Your task to perform on an android device: turn notification dots off Image 0: 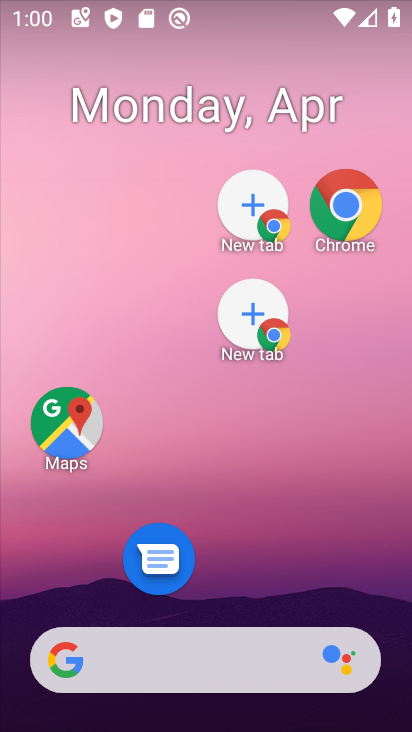
Step 0: drag from (63, 543) to (155, 246)
Your task to perform on an android device: turn notification dots off Image 1: 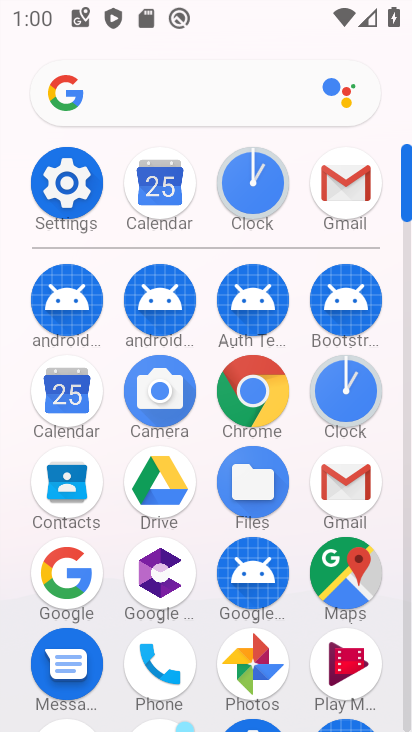
Step 1: click (85, 187)
Your task to perform on an android device: turn notification dots off Image 2: 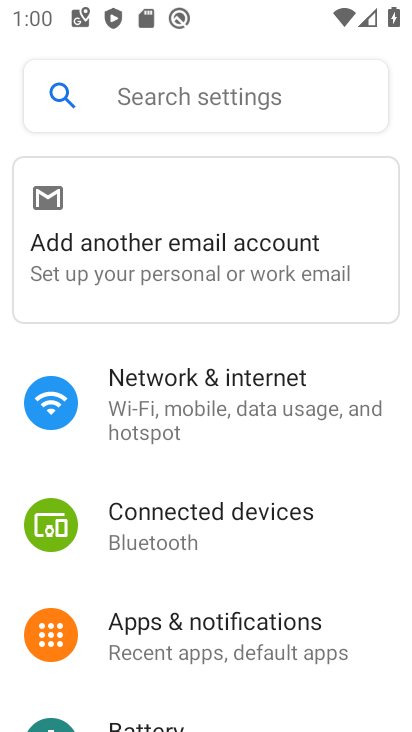
Step 2: click (251, 630)
Your task to perform on an android device: turn notification dots off Image 3: 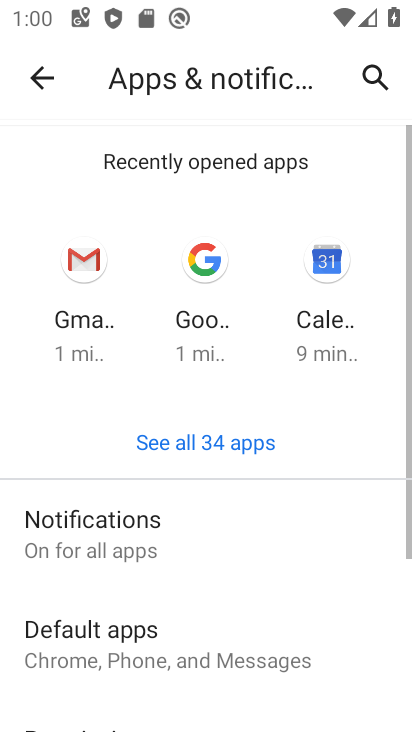
Step 3: drag from (132, 652) to (286, 171)
Your task to perform on an android device: turn notification dots off Image 4: 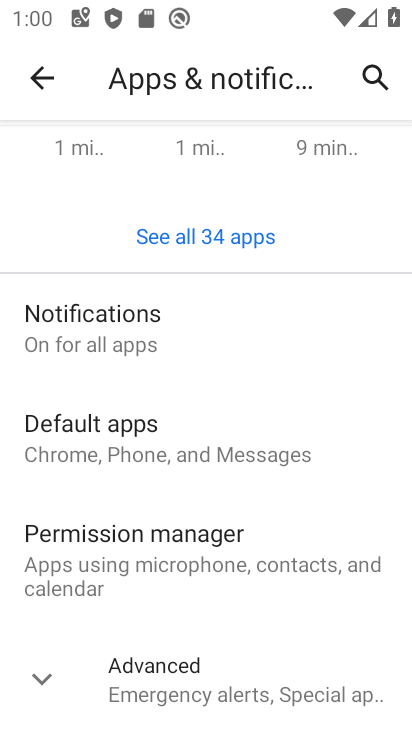
Step 4: drag from (265, 691) to (398, 321)
Your task to perform on an android device: turn notification dots off Image 5: 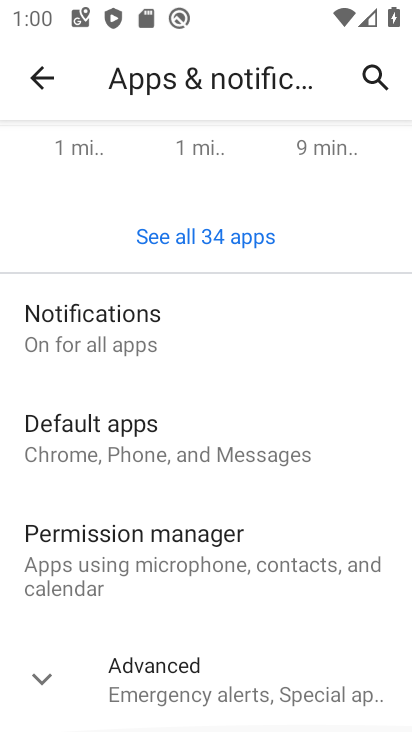
Step 5: drag from (129, 641) to (277, 284)
Your task to perform on an android device: turn notification dots off Image 6: 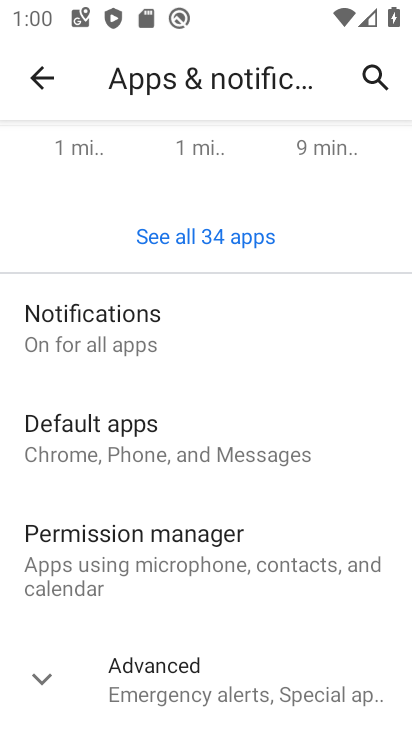
Step 6: click (173, 325)
Your task to perform on an android device: turn notification dots off Image 7: 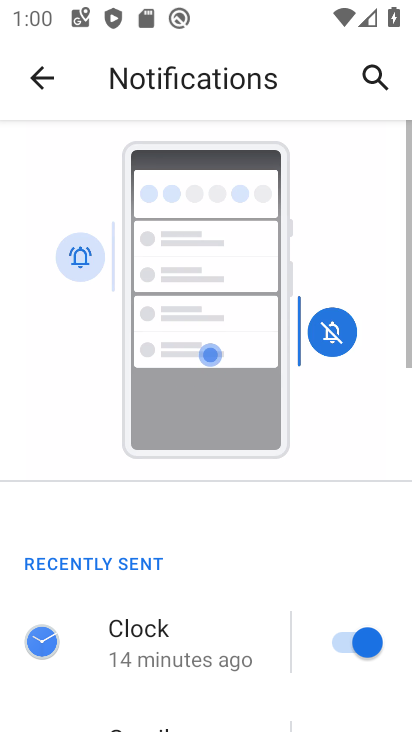
Step 7: drag from (164, 677) to (342, 293)
Your task to perform on an android device: turn notification dots off Image 8: 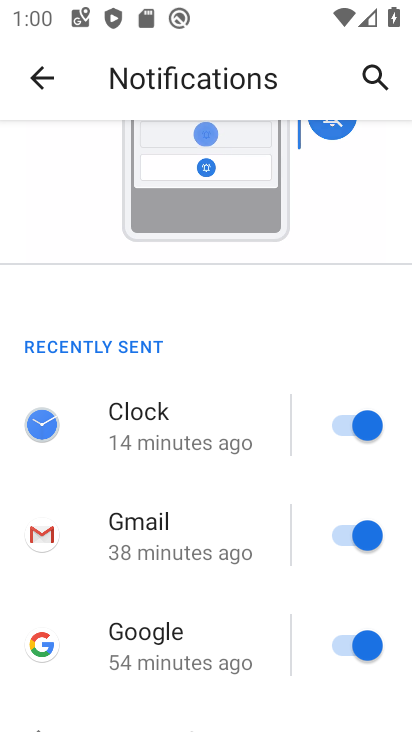
Step 8: drag from (201, 658) to (349, 276)
Your task to perform on an android device: turn notification dots off Image 9: 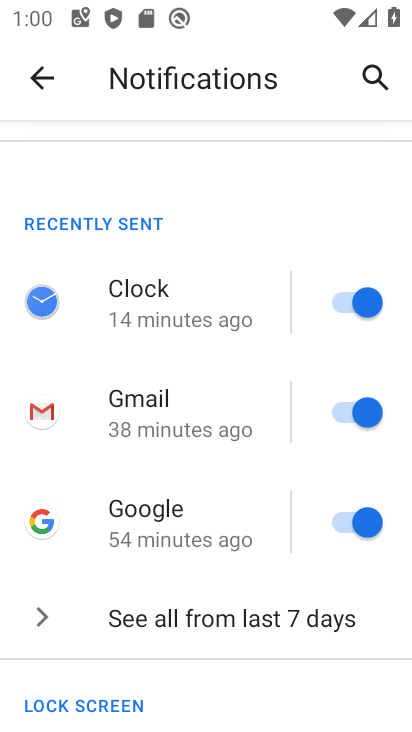
Step 9: drag from (156, 645) to (319, 336)
Your task to perform on an android device: turn notification dots off Image 10: 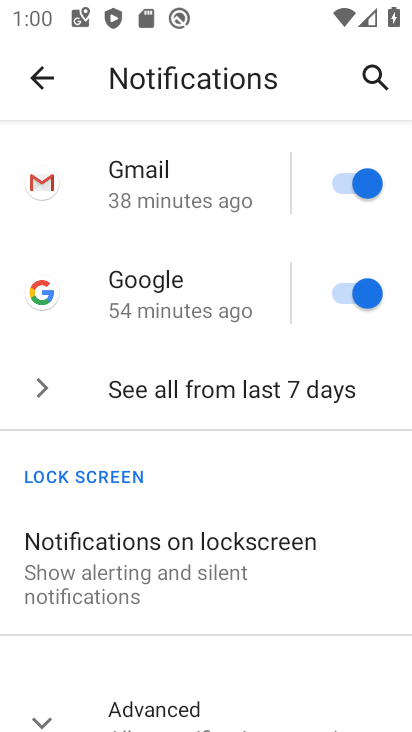
Step 10: drag from (143, 608) to (411, 368)
Your task to perform on an android device: turn notification dots off Image 11: 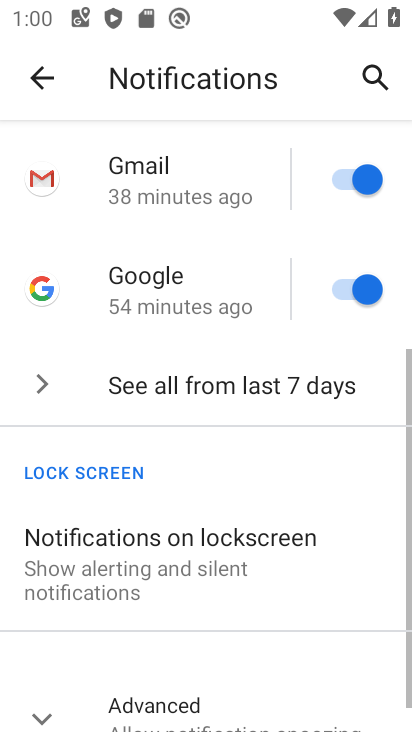
Step 11: click (194, 663)
Your task to perform on an android device: turn notification dots off Image 12: 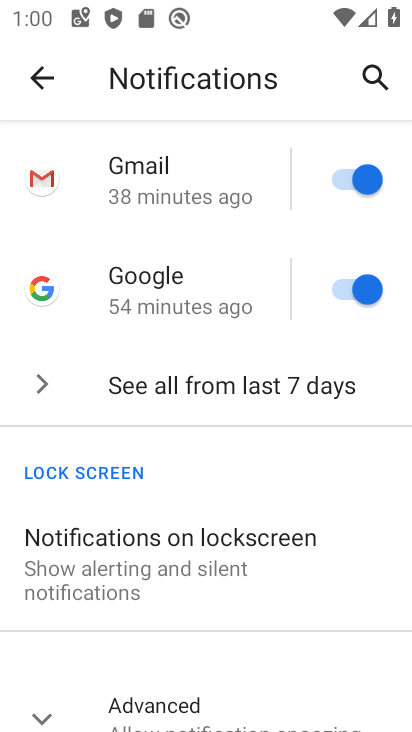
Step 12: click (179, 705)
Your task to perform on an android device: turn notification dots off Image 13: 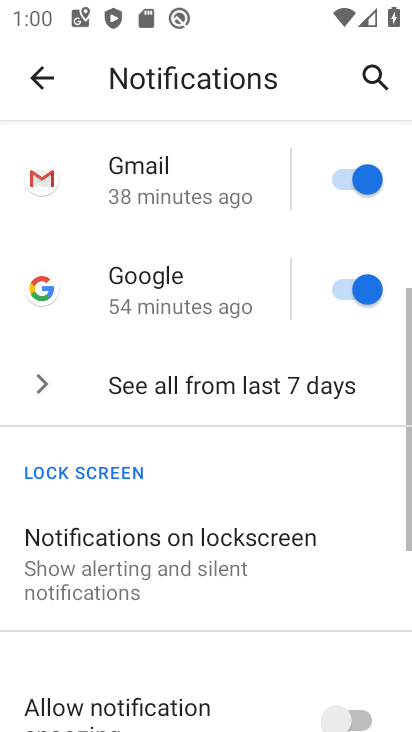
Step 13: drag from (238, 629) to (390, 328)
Your task to perform on an android device: turn notification dots off Image 14: 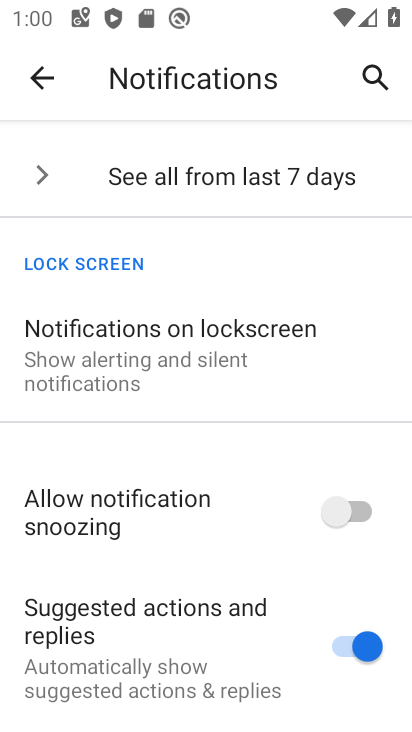
Step 14: drag from (101, 641) to (288, 307)
Your task to perform on an android device: turn notification dots off Image 15: 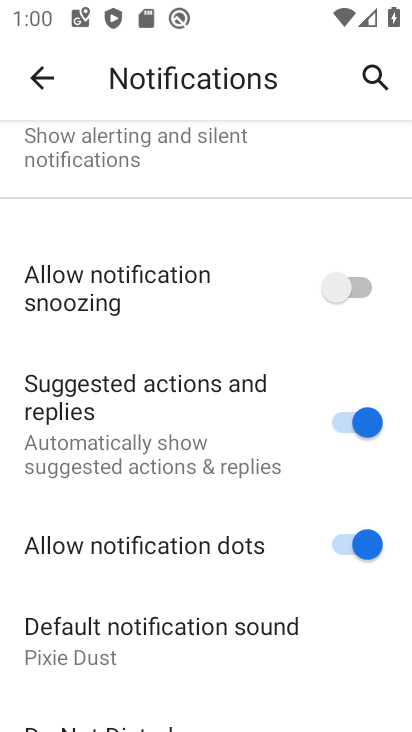
Step 15: click (363, 545)
Your task to perform on an android device: turn notification dots off Image 16: 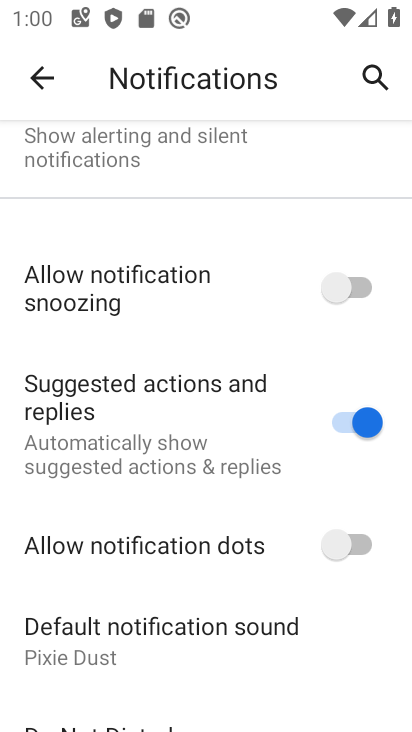
Step 16: task complete